Your task to perform on an android device: visit the assistant section in the google photos Image 0: 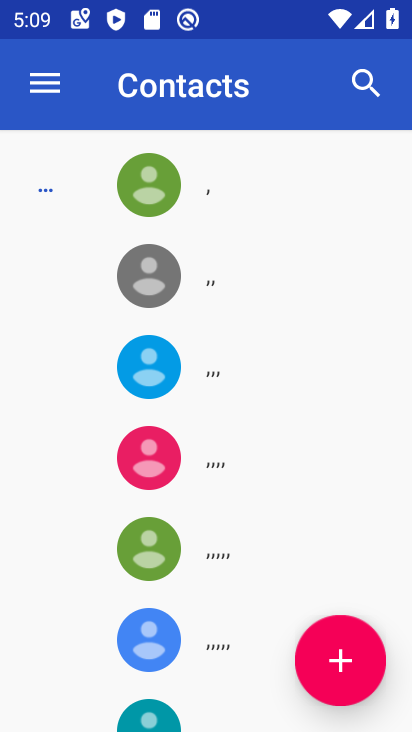
Step 0: press home button
Your task to perform on an android device: visit the assistant section in the google photos Image 1: 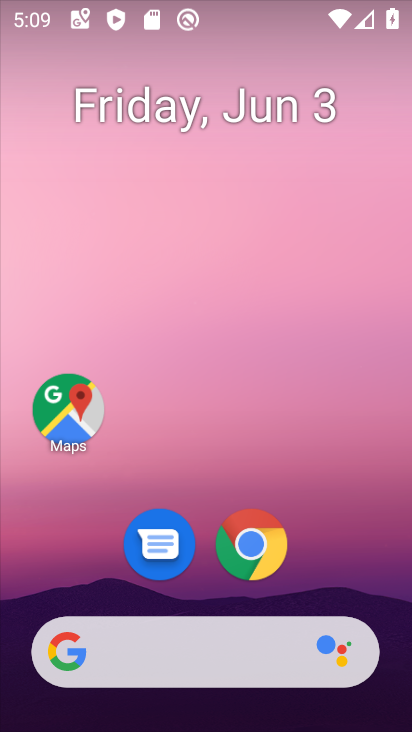
Step 1: drag from (323, 571) to (303, 125)
Your task to perform on an android device: visit the assistant section in the google photos Image 2: 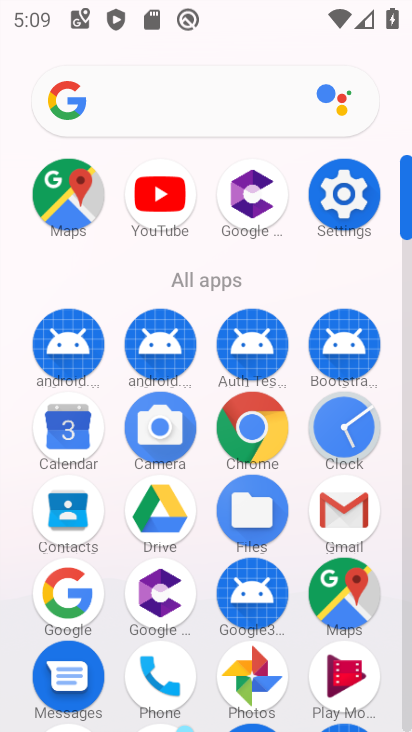
Step 2: drag from (300, 462) to (306, 116)
Your task to perform on an android device: visit the assistant section in the google photos Image 3: 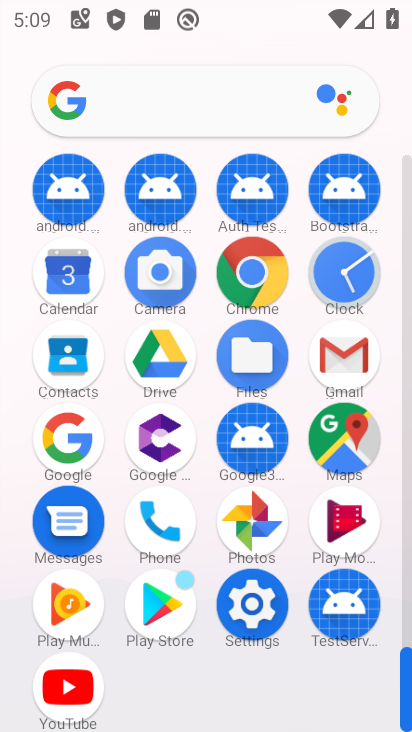
Step 3: click (247, 514)
Your task to perform on an android device: visit the assistant section in the google photos Image 4: 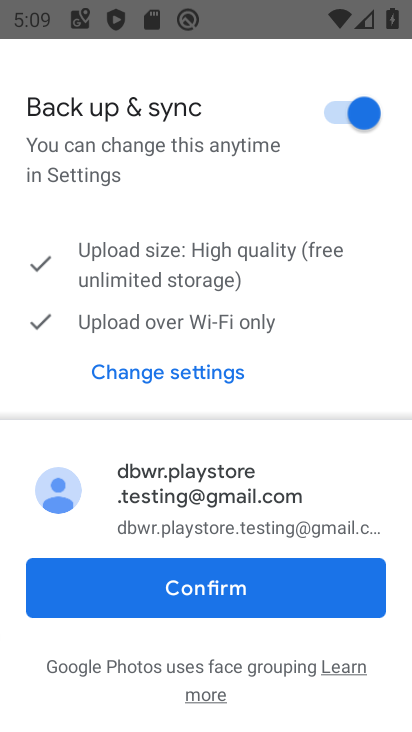
Step 4: click (276, 581)
Your task to perform on an android device: visit the assistant section in the google photos Image 5: 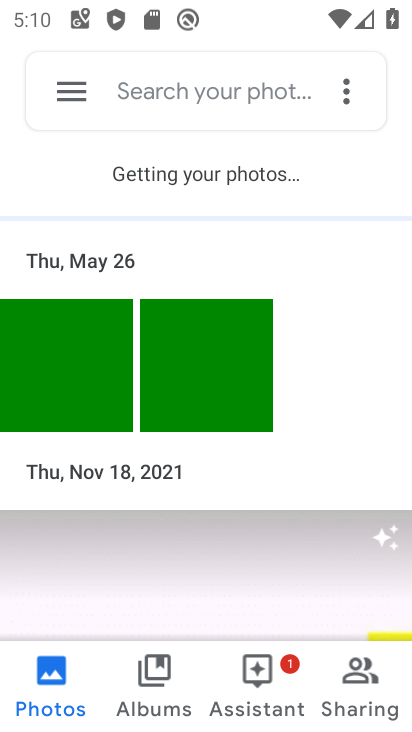
Step 5: click (252, 675)
Your task to perform on an android device: visit the assistant section in the google photos Image 6: 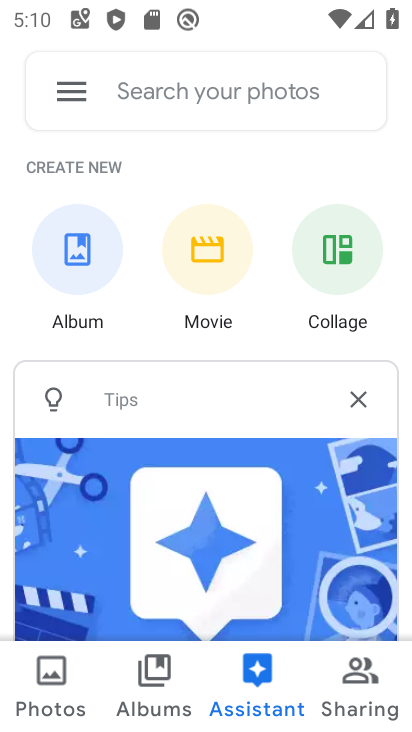
Step 6: task complete